Your task to perform on an android device: set the timer Image 0: 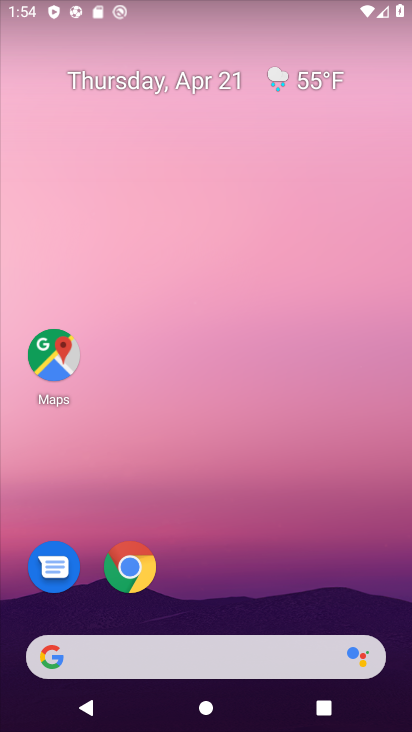
Step 0: drag from (200, 652) to (365, 81)
Your task to perform on an android device: set the timer Image 1: 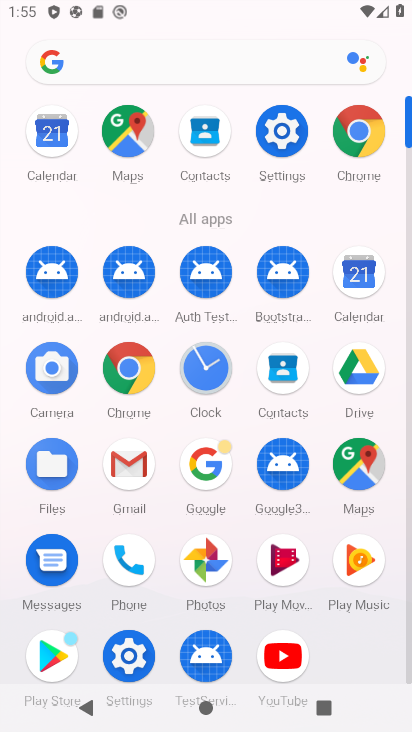
Step 1: click (209, 378)
Your task to perform on an android device: set the timer Image 2: 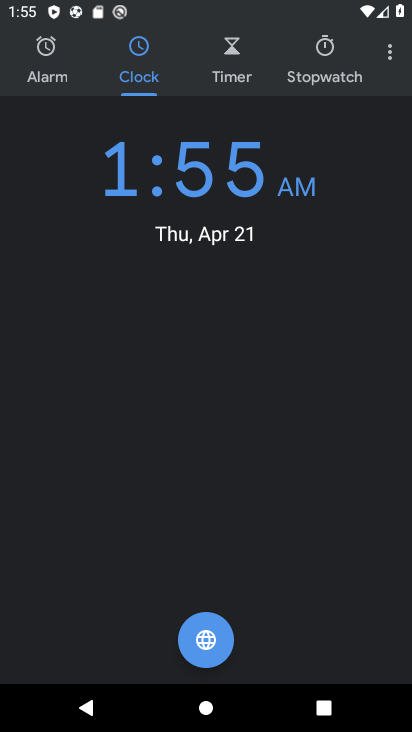
Step 2: click (228, 51)
Your task to perform on an android device: set the timer Image 3: 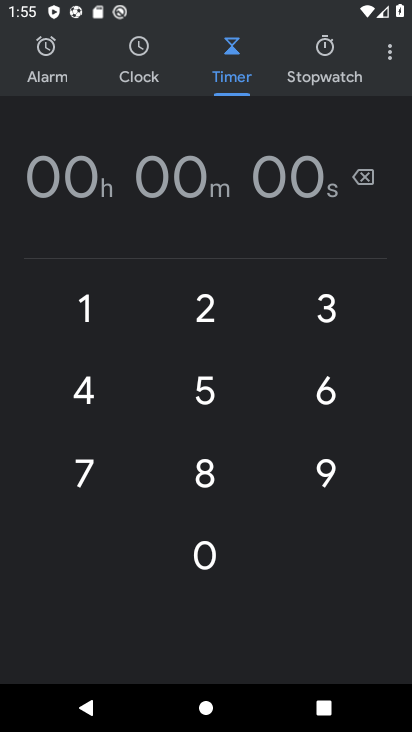
Step 3: click (87, 388)
Your task to perform on an android device: set the timer Image 4: 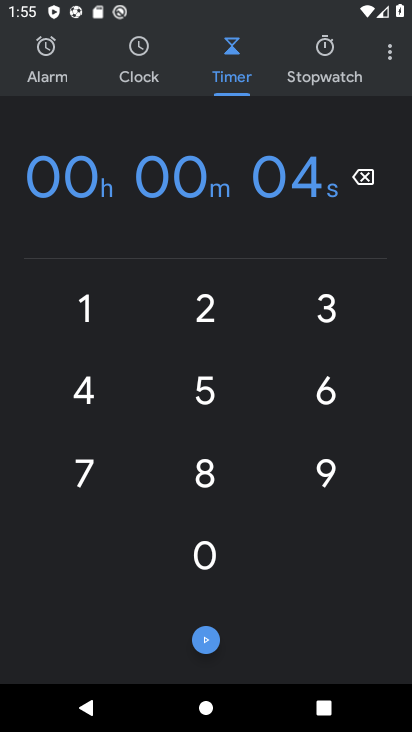
Step 4: click (216, 320)
Your task to perform on an android device: set the timer Image 5: 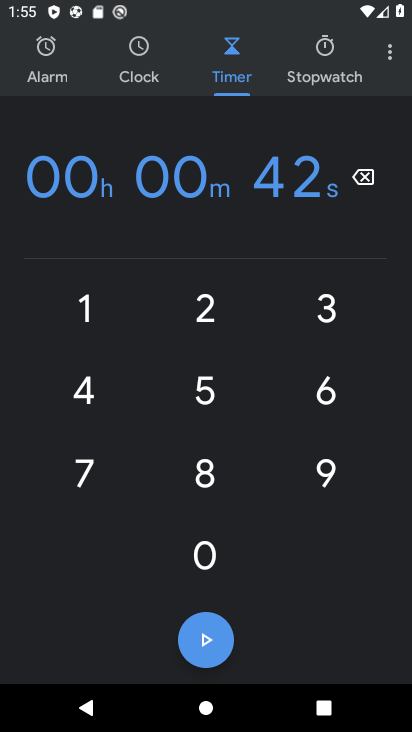
Step 5: click (212, 642)
Your task to perform on an android device: set the timer Image 6: 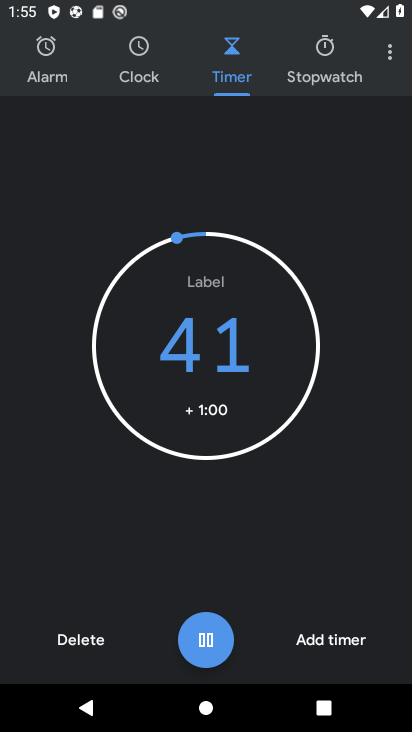
Step 6: click (209, 644)
Your task to perform on an android device: set the timer Image 7: 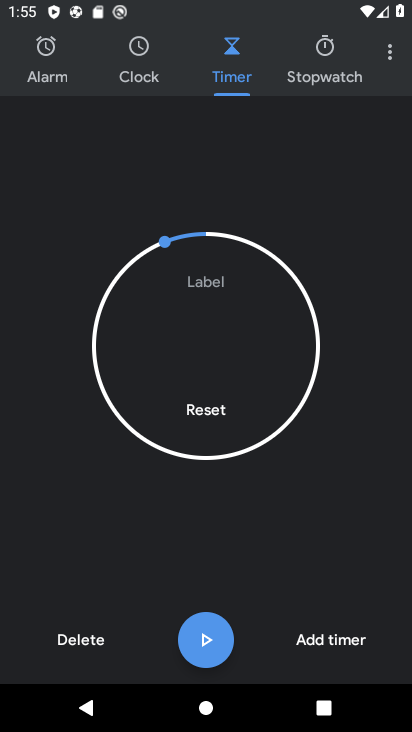
Step 7: task complete